Your task to perform on an android device: Open calendar and show me the third week of next month Image 0: 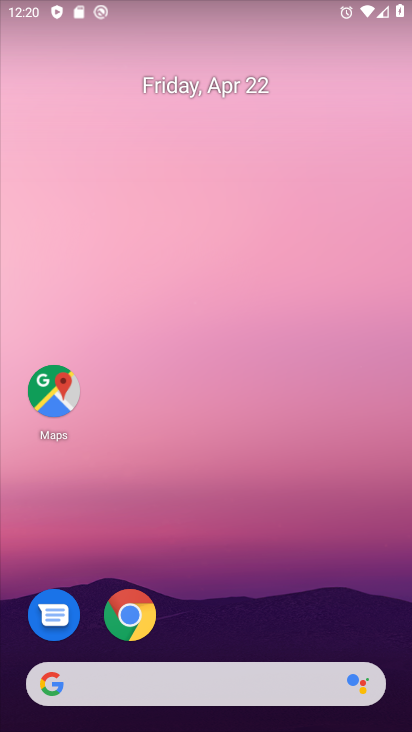
Step 0: drag from (270, 626) to (188, 134)
Your task to perform on an android device: Open calendar and show me the third week of next month Image 1: 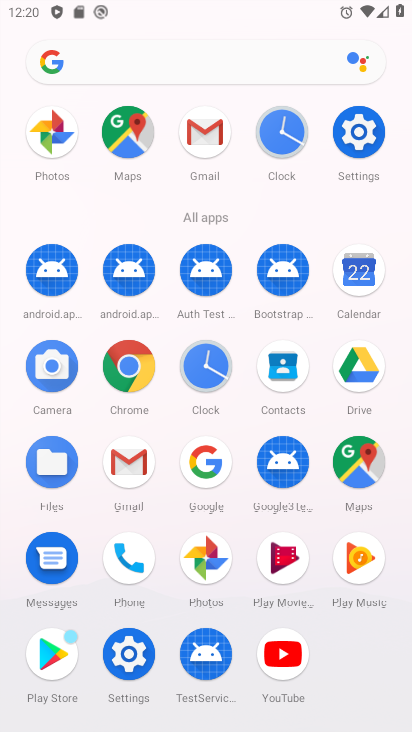
Step 1: click (360, 276)
Your task to perform on an android device: Open calendar and show me the third week of next month Image 2: 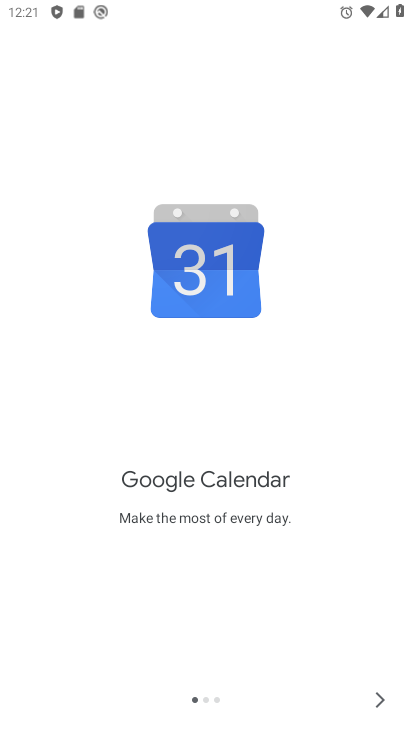
Step 2: click (383, 702)
Your task to perform on an android device: Open calendar and show me the third week of next month Image 3: 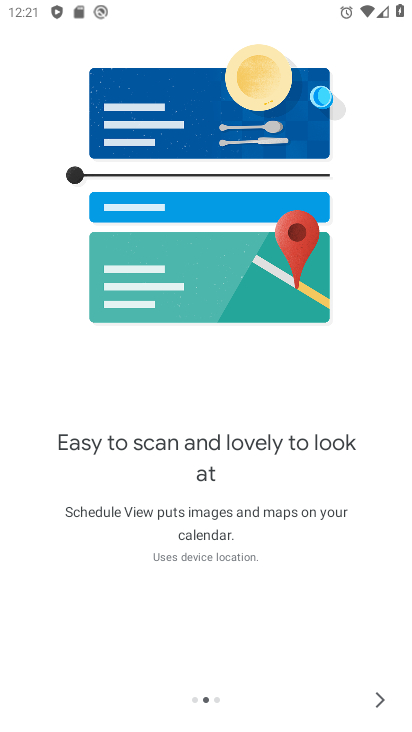
Step 3: click (377, 697)
Your task to perform on an android device: Open calendar and show me the third week of next month Image 4: 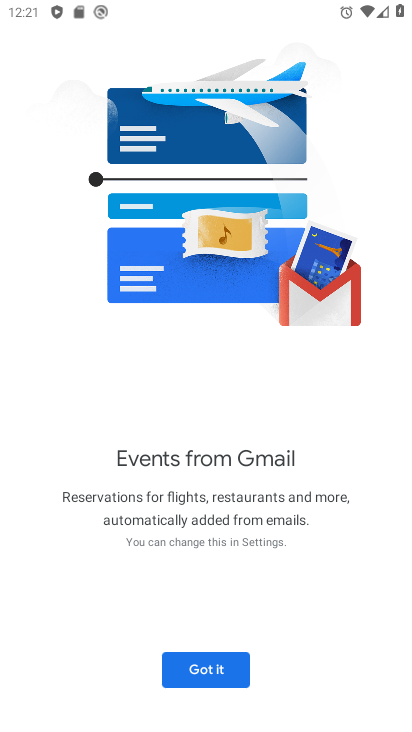
Step 4: click (241, 668)
Your task to perform on an android device: Open calendar and show me the third week of next month Image 5: 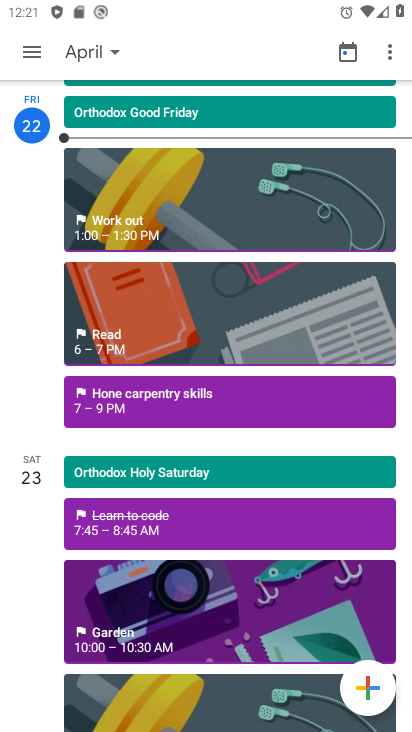
Step 5: click (103, 64)
Your task to perform on an android device: Open calendar and show me the third week of next month Image 6: 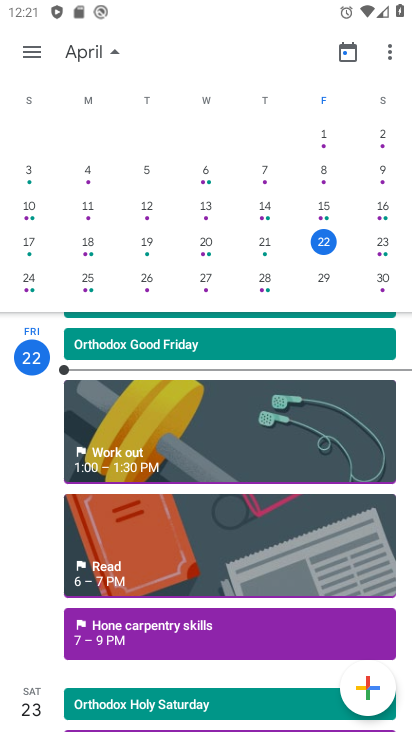
Step 6: drag from (375, 196) to (0, 161)
Your task to perform on an android device: Open calendar and show me the third week of next month Image 7: 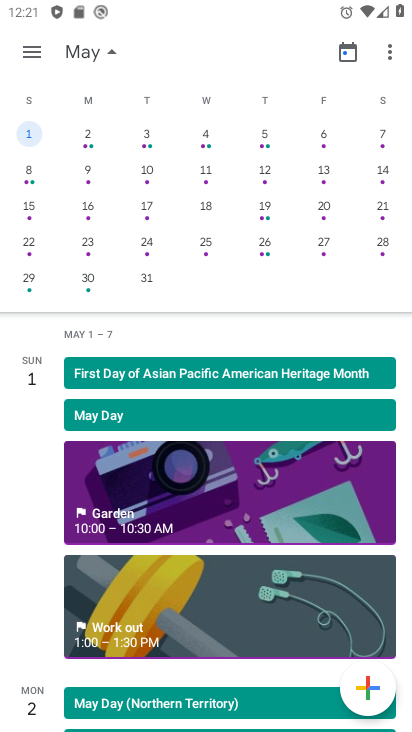
Step 7: click (27, 52)
Your task to perform on an android device: Open calendar and show me the third week of next month Image 8: 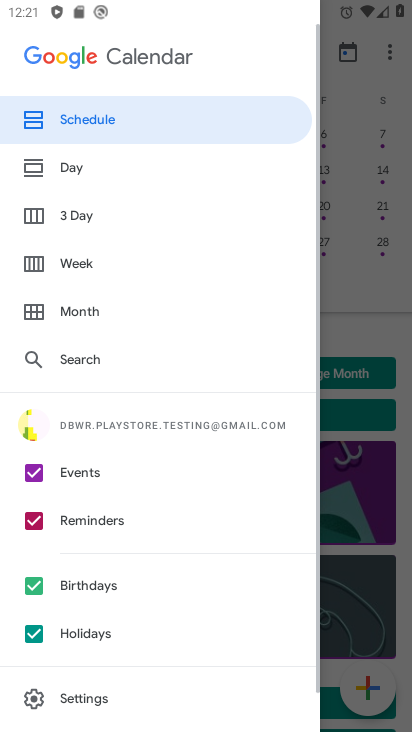
Step 8: click (93, 271)
Your task to perform on an android device: Open calendar and show me the third week of next month Image 9: 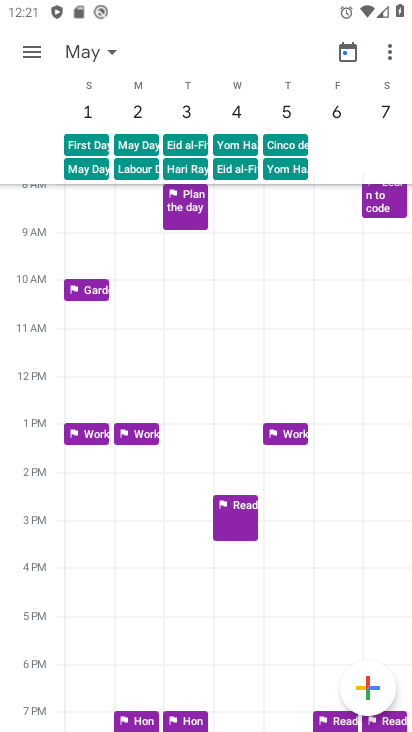
Step 9: task complete